Your task to perform on an android device: Open sound settings Image 0: 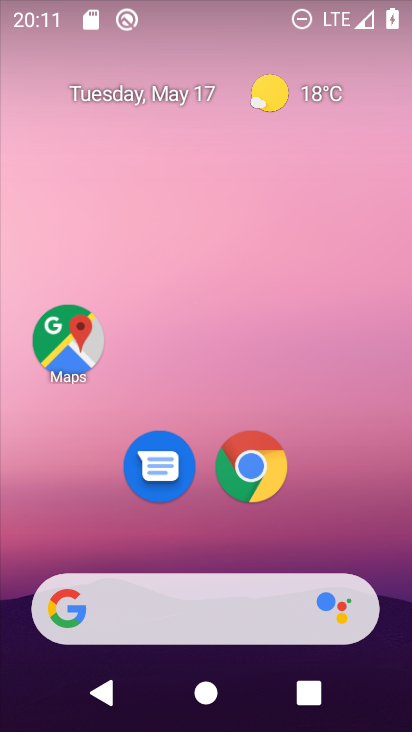
Step 0: drag from (143, 613) to (287, 175)
Your task to perform on an android device: Open sound settings Image 1: 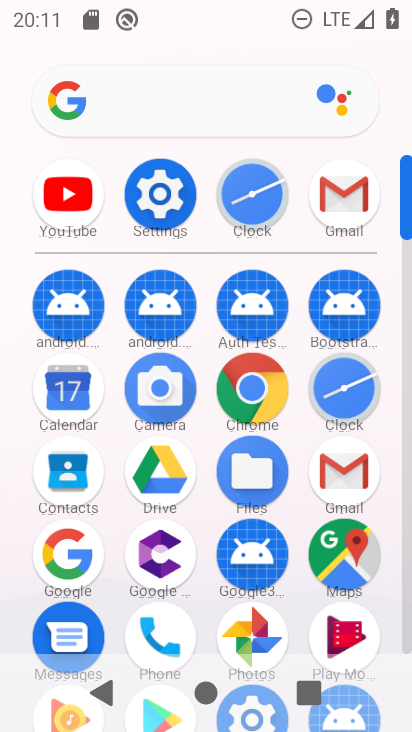
Step 1: click (160, 189)
Your task to perform on an android device: Open sound settings Image 2: 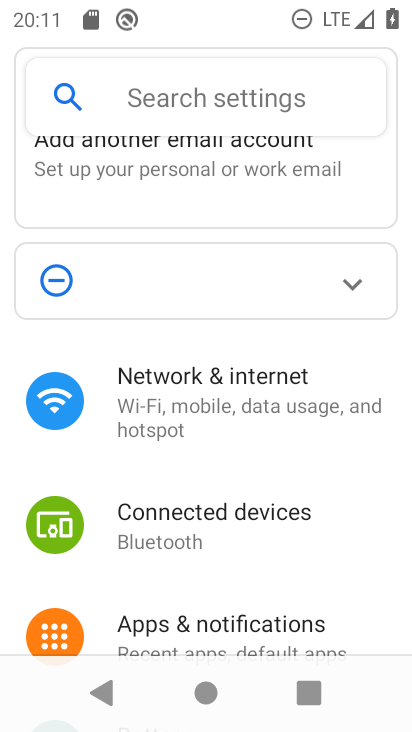
Step 2: drag from (262, 573) to (375, 100)
Your task to perform on an android device: Open sound settings Image 3: 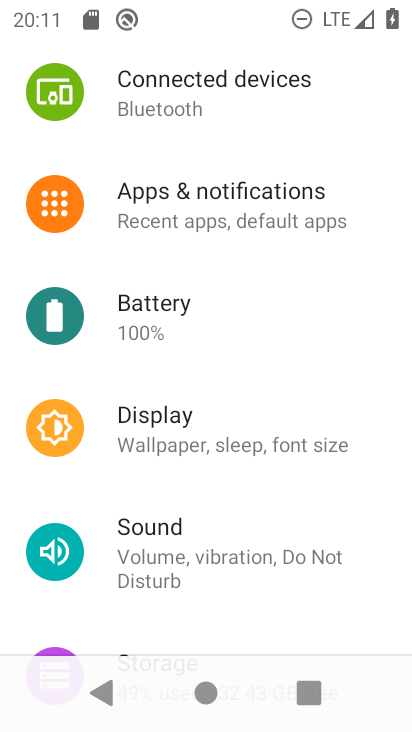
Step 3: click (184, 554)
Your task to perform on an android device: Open sound settings Image 4: 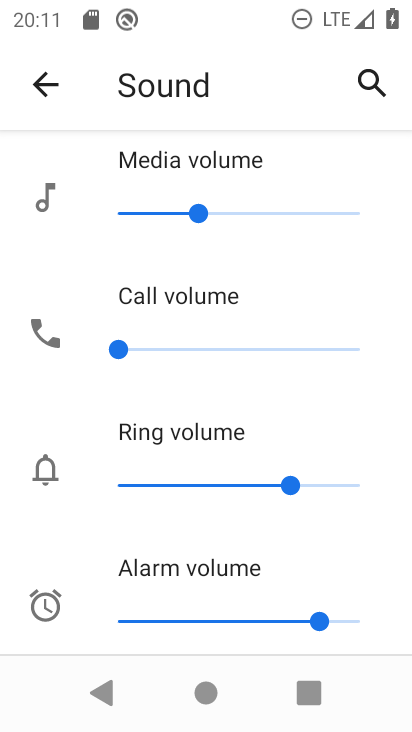
Step 4: task complete